Your task to perform on an android device: Open the map Image 0: 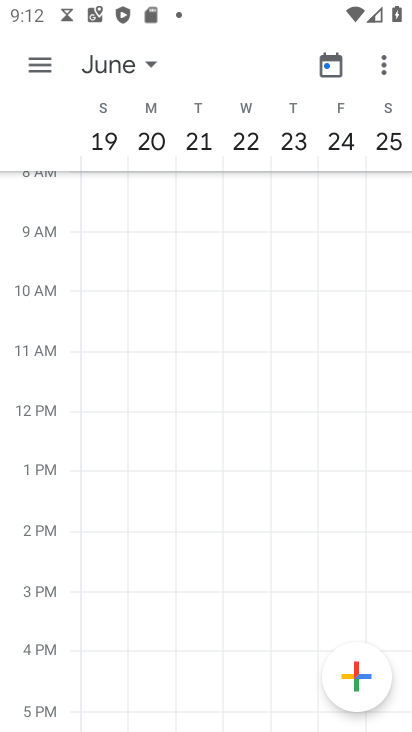
Step 0: press home button
Your task to perform on an android device: Open the map Image 1: 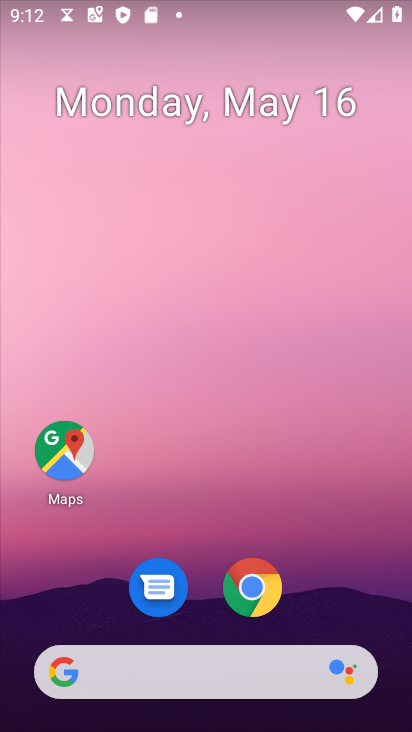
Step 1: click (62, 449)
Your task to perform on an android device: Open the map Image 2: 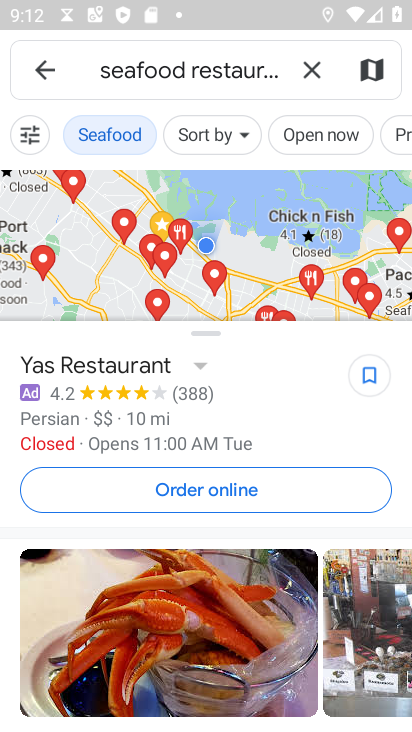
Step 2: task complete